Your task to perform on an android device: turn on notifications settings in the gmail app Image 0: 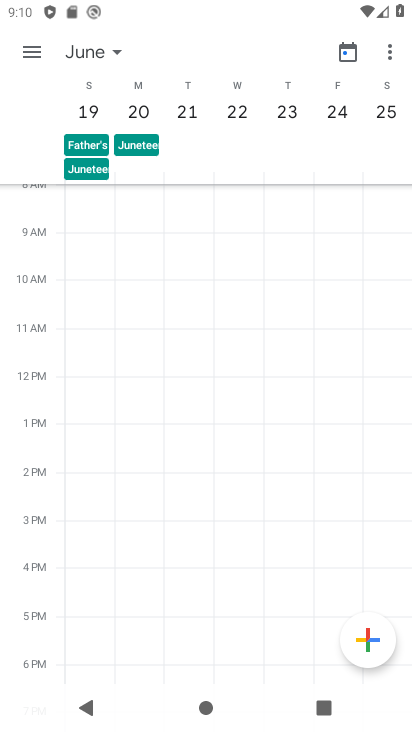
Step 0: press home button
Your task to perform on an android device: turn on notifications settings in the gmail app Image 1: 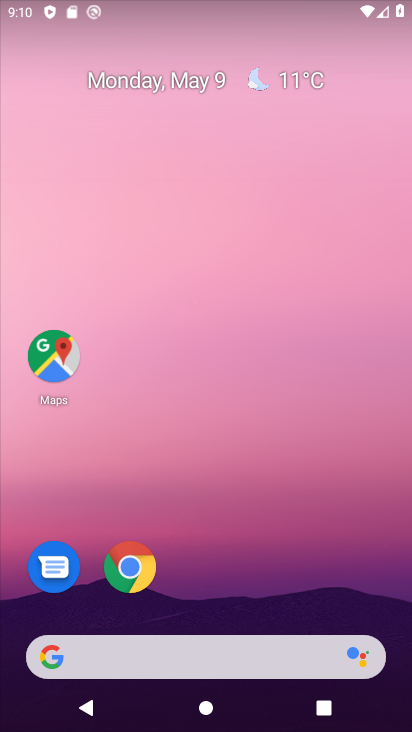
Step 1: drag from (268, 510) to (325, 20)
Your task to perform on an android device: turn on notifications settings in the gmail app Image 2: 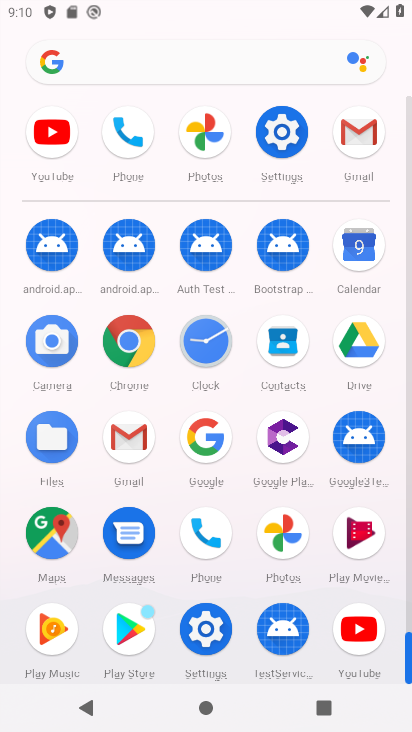
Step 2: click (354, 130)
Your task to perform on an android device: turn on notifications settings in the gmail app Image 3: 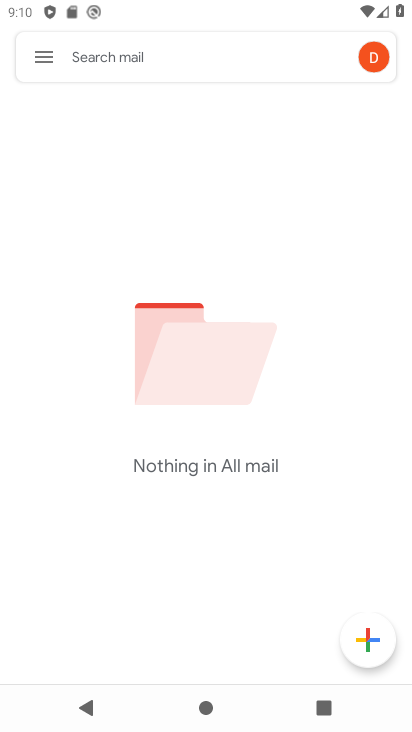
Step 3: click (36, 51)
Your task to perform on an android device: turn on notifications settings in the gmail app Image 4: 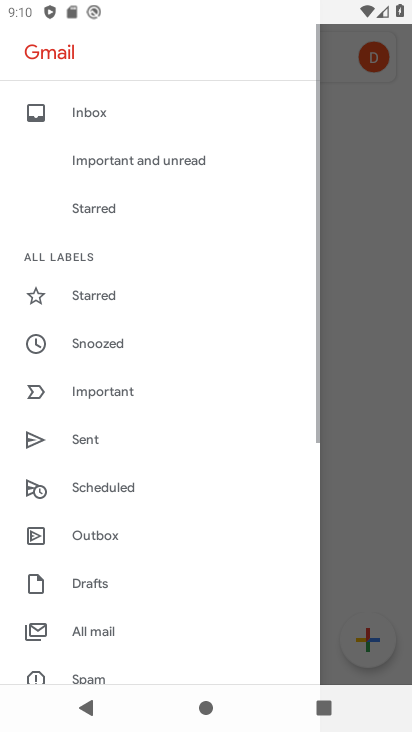
Step 4: drag from (164, 634) to (238, 208)
Your task to perform on an android device: turn on notifications settings in the gmail app Image 5: 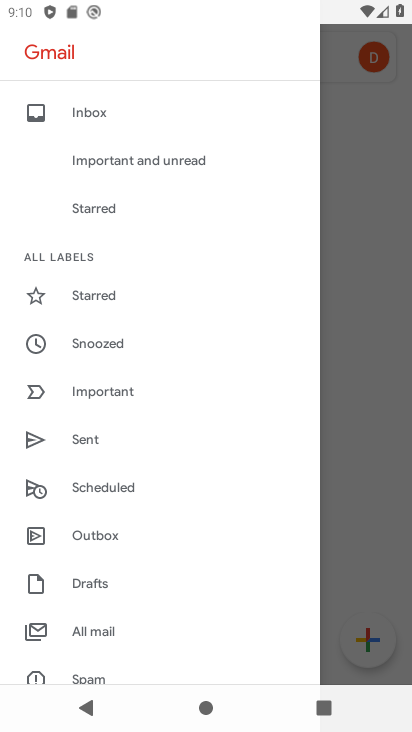
Step 5: drag from (142, 549) to (201, 111)
Your task to perform on an android device: turn on notifications settings in the gmail app Image 6: 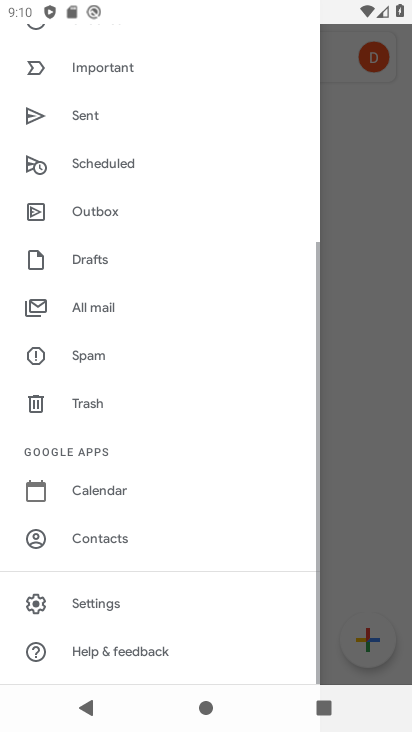
Step 6: click (110, 602)
Your task to perform on an android device: turn on notifications settings in the gmail app Image 7: 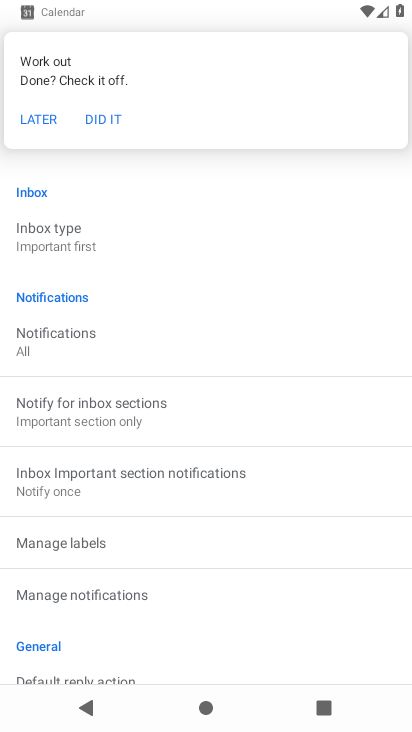
Step 7: click (139, 593)
Your task to perform on an android device: turn on notifications settings in the gmail app Image 8: 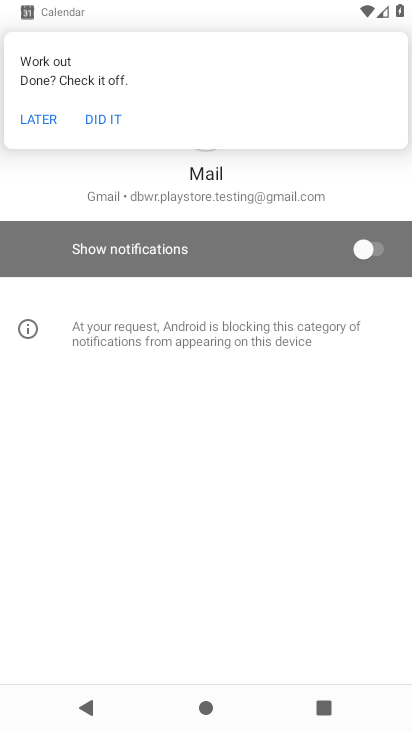
Step 8: click (374, 236)
Your task to perform on an android device: turn on notifications settings in the gmail app Image 9: 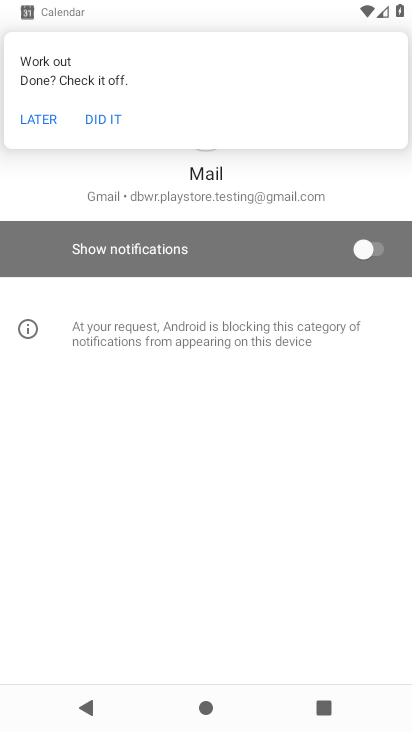
Step 9: click (374, 251)
Your task to perform on an android device: turn on notifications settings in the gmail app Image 10: 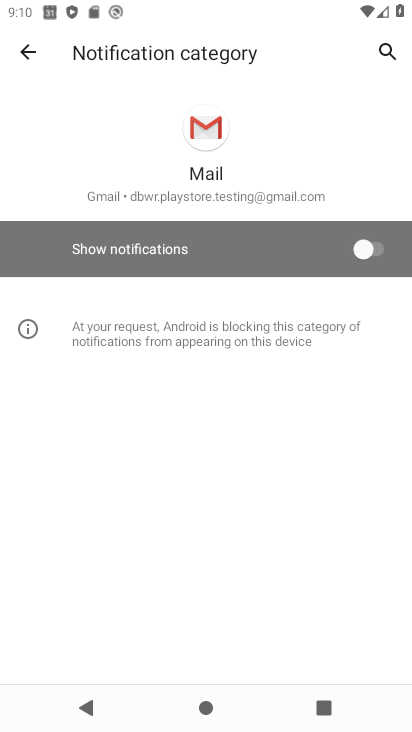
Step 10: click (370, 246)
Your task to perform on an android device: turn on notifications settings in the gmail app Image 11: 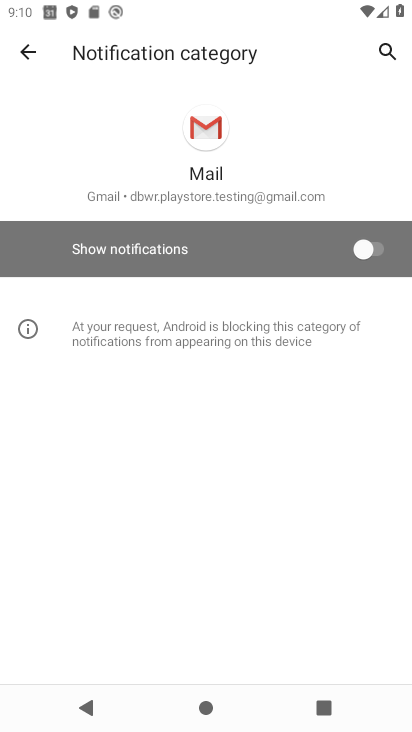
Step 11: click (31, 51)
Your task to perform on an android device: turn on notifications settings in the gmail app Image 12: 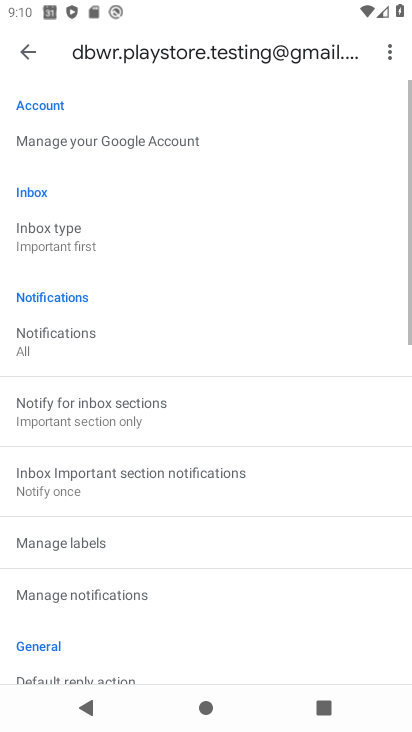
Step 12: click (31, 51)
Your task to perform on an android device: turn on notifications settings in the gmail app Image 13: 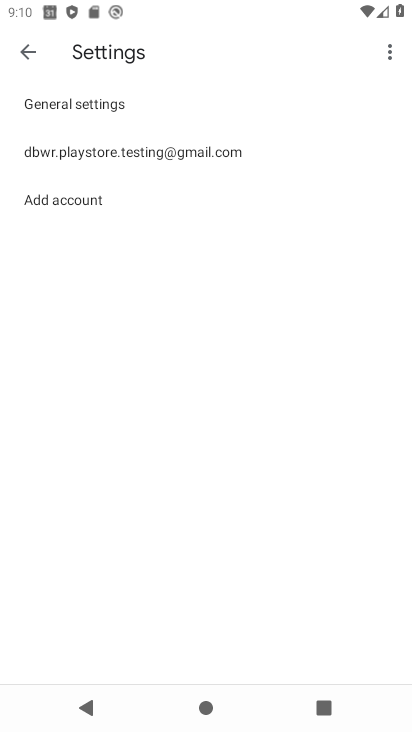
Step 13: click (66, 93)
Your task to perform on an android device: turn on notifications settings in the gmail app Image 14: 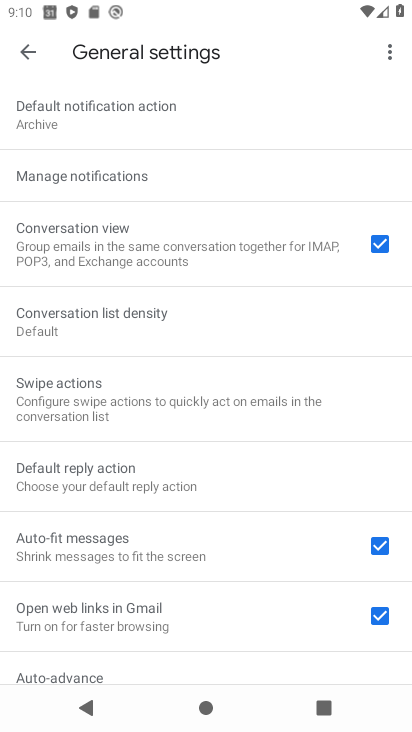
Step 14: click (135, 176)
Your task to perform on an android device: turn on notifications settings in the gmail app Image 15: 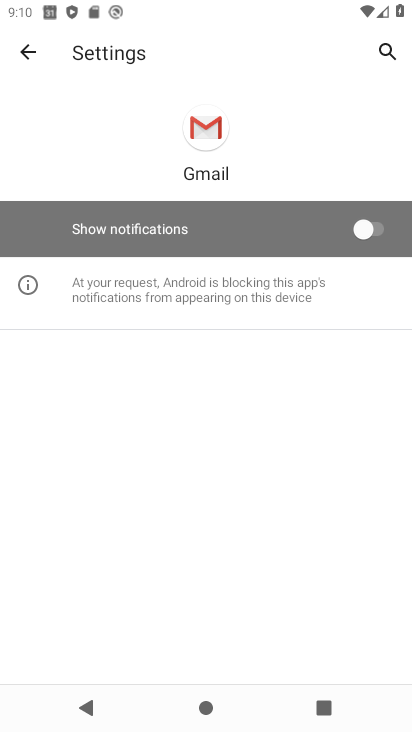
Step 15: click (371, 227)
Your task to perform on an android device: turn on notifications settings in the gmail app Image 16: 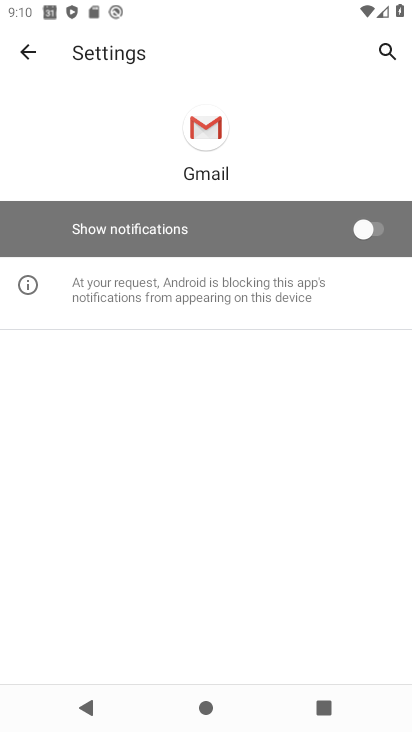
Step 16: click (360, 219)
Your task to perform on an android device: turn on notifications settings in the gmail app Image 17: 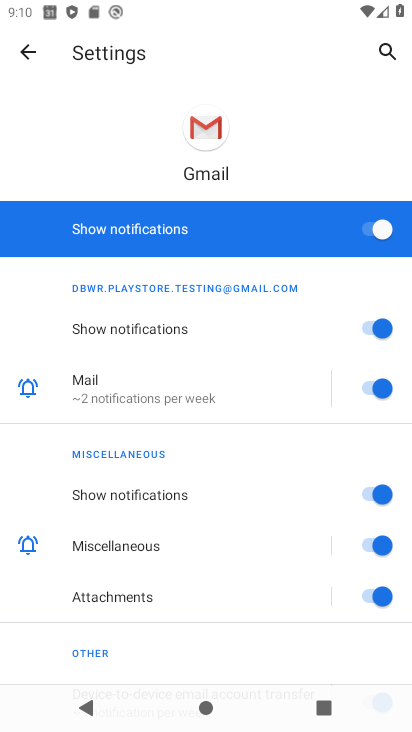
Step 17: task complete